Your task to perform on an android device: turn on data saver in the chrome app Image 0: 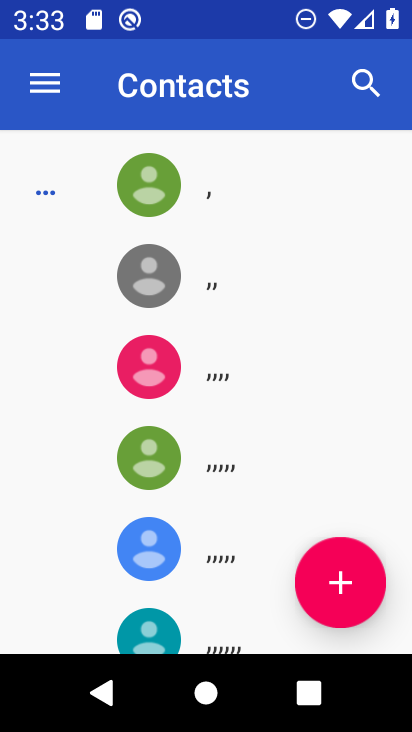
Step 0: press home button
Your task to perform on an android device: turn on data saver in the chrome app Image 1: 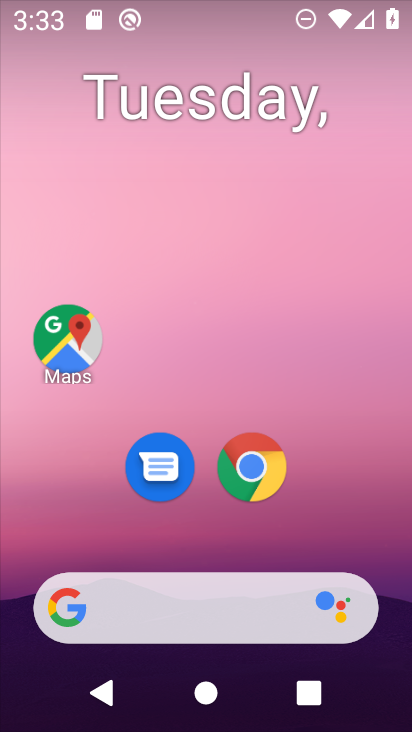
Step 1: click (246, 477)
Your task to perform on an android device: turn on data saver in the chrome app Image 2: 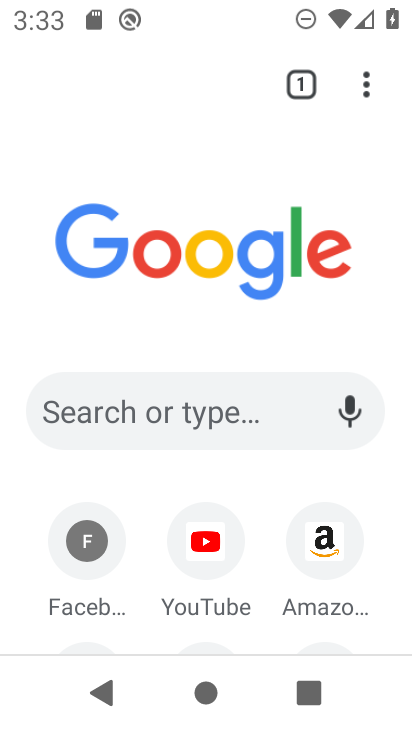
Step 2: click (359, 93)
Your task to perform on an android device: turn on data saver in the chrome app Image 3: 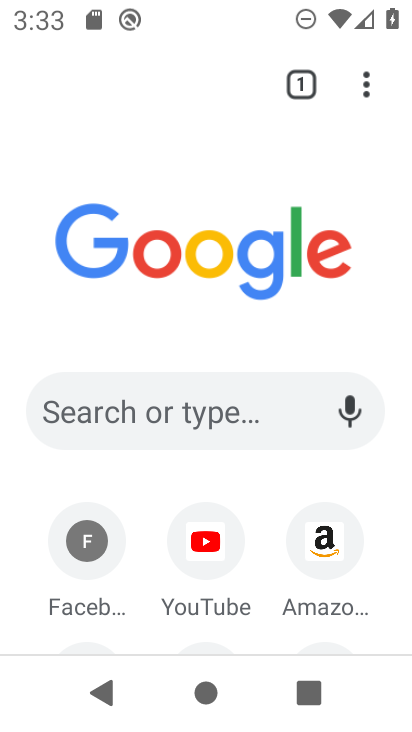
Step 3: drag from (358, 92) to (140, 528)
Your task to perform on an android device: turn on data saver in the chrome app Image 4: 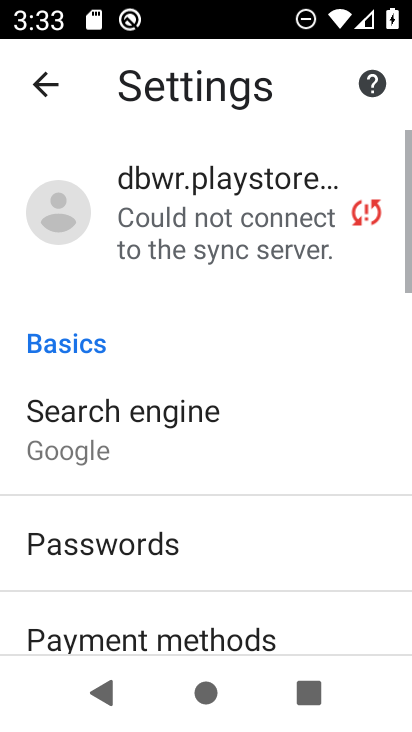
Step 4: drag from (139, 527) to (111, 32)
Your task to perform on an android device: turn on data saver in the chrome app Image 5: 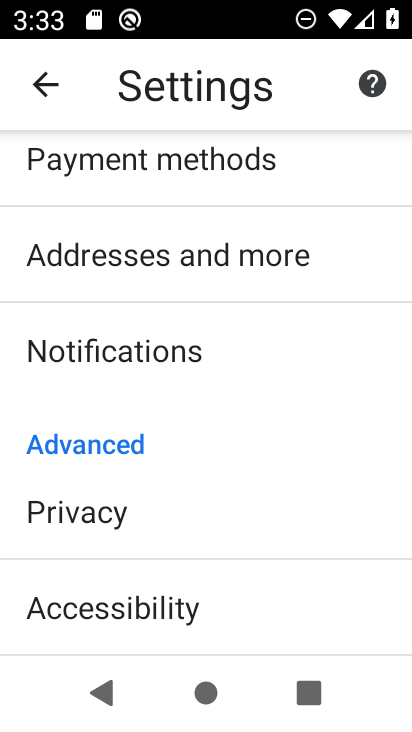
Step 5: drag from (125, 508) to (96, 88)
Your task to perform on an android device: turn on data saver in the chrome app Image 6: 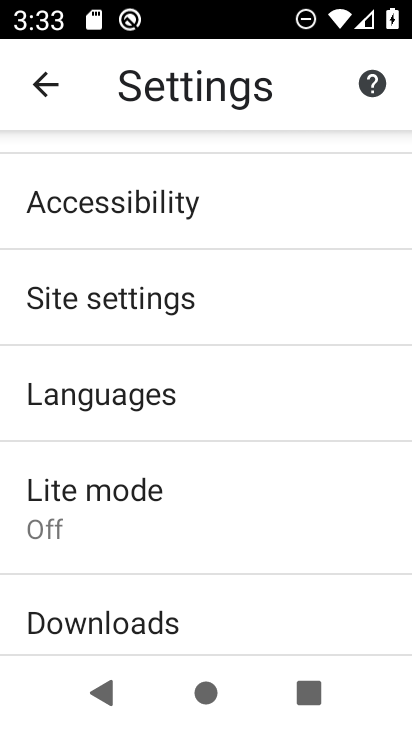
Step 6: click (105, 497)
Your task to perform on an android device: turn on data saver in the chrome app Image 7: 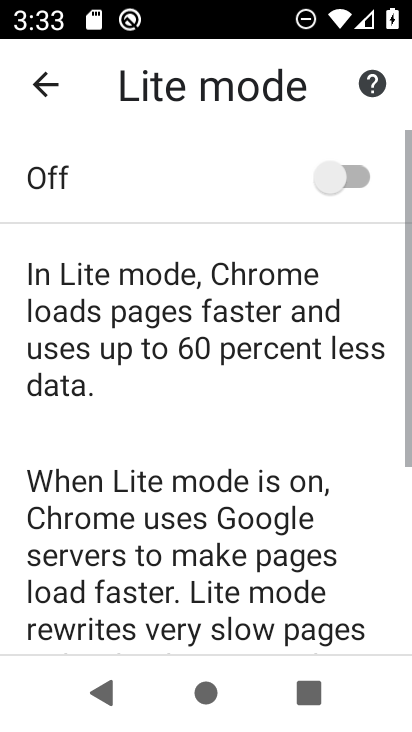
Step 7: click (343, 174)
Your task to perform on an android device: turn on data saver in the chrome app Image 8: 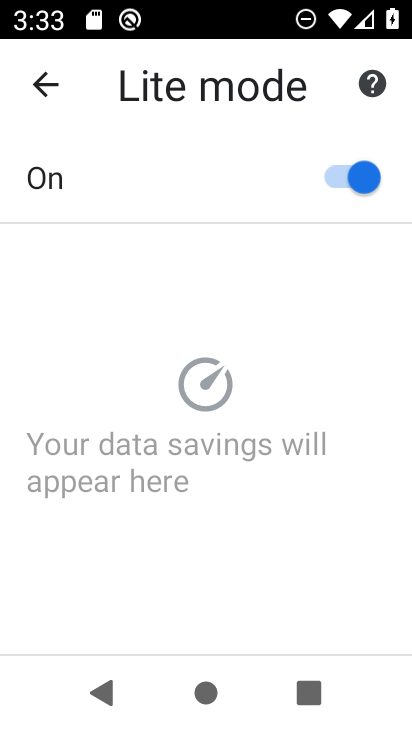
Step 8: task complete